Your task to perform on an android device: Open Google Chrome Image 0: 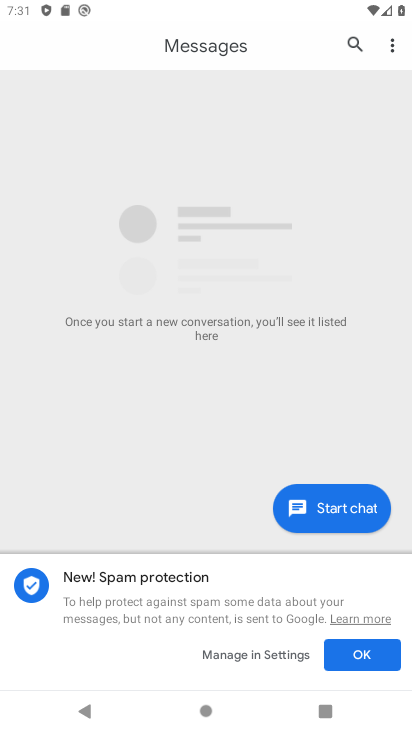
Step 0: press home button
Your task to perform on an android device: Open Google Chrome Image 1: 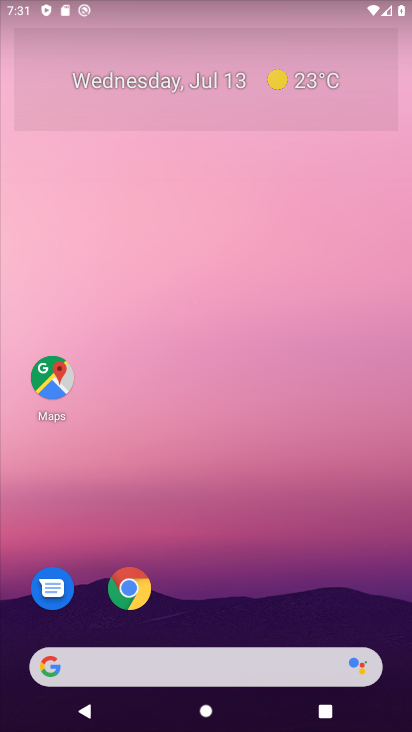
Step 1: click (118, 598)
Your task to perform on an android device: Open Google Chrome Image 2: 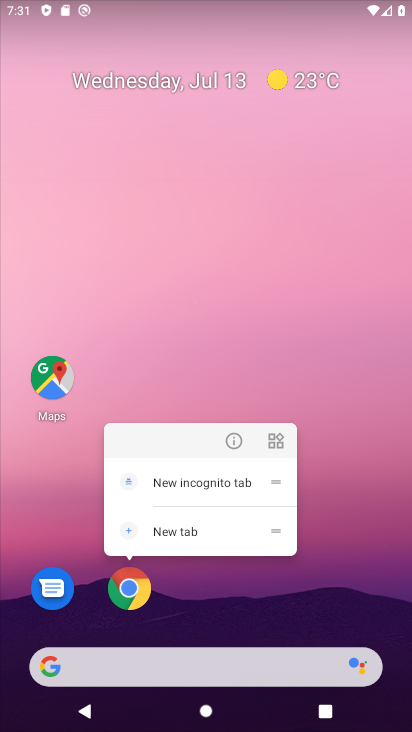
Step 2: click (118, 598)
Your task to perform on an android device: Open Google Chrome Image 3: 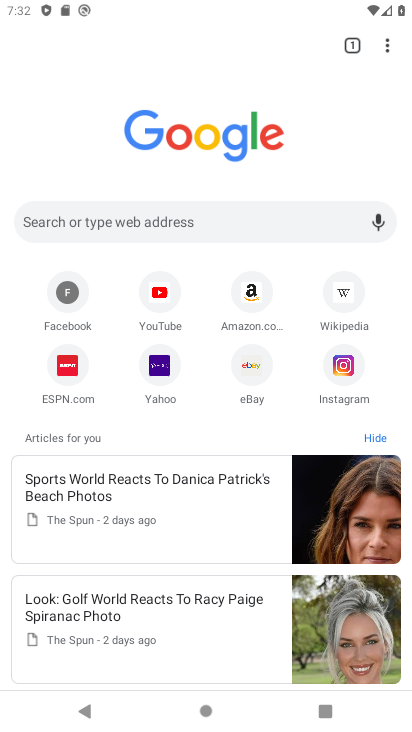
Step 3: task complete